Your task to perform on an android device: Go to Google Image 0: 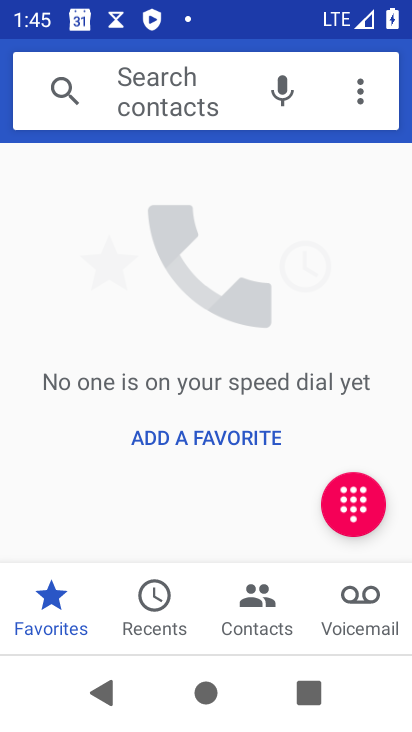
Step 0: press back button
Your task to perform on an android device: Go to Google Image 1: 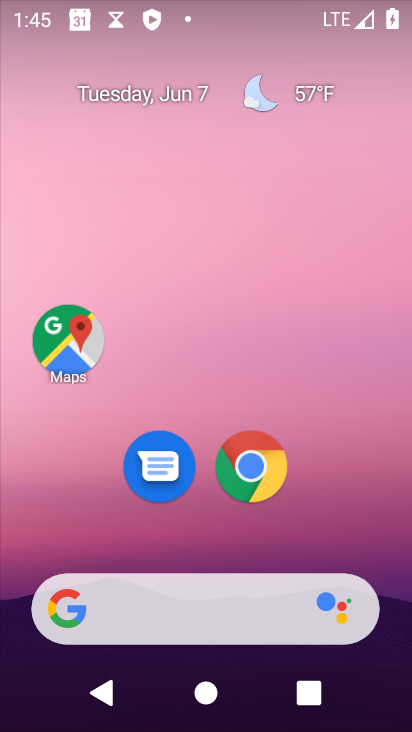
Step 1: drag from (208, 433) to (266, 62)
Your task to perform on an android device: Go to Google Image 2: 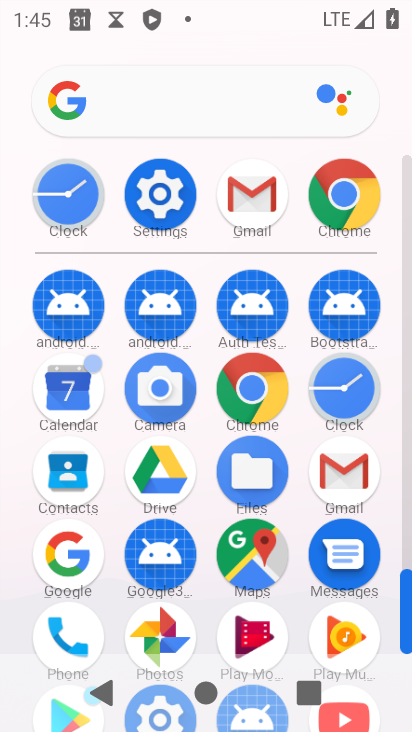
Step 2: click (66, 556)
Your task to perform on an android device: Go to Google Image 3: 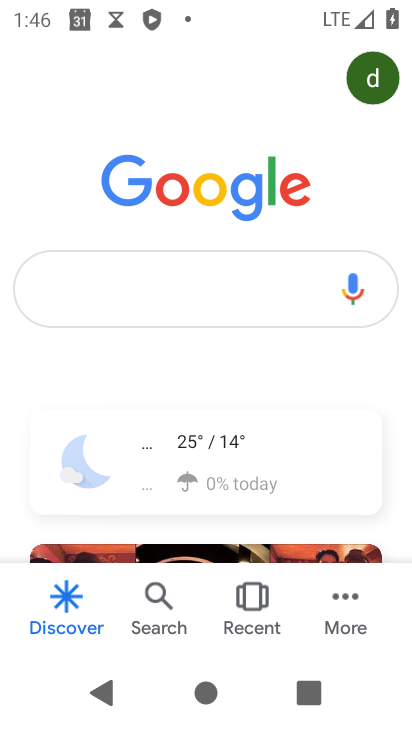
Step 3: task complete